Your task to perform on an android device: Do I have any events tomorrow? Image 0: 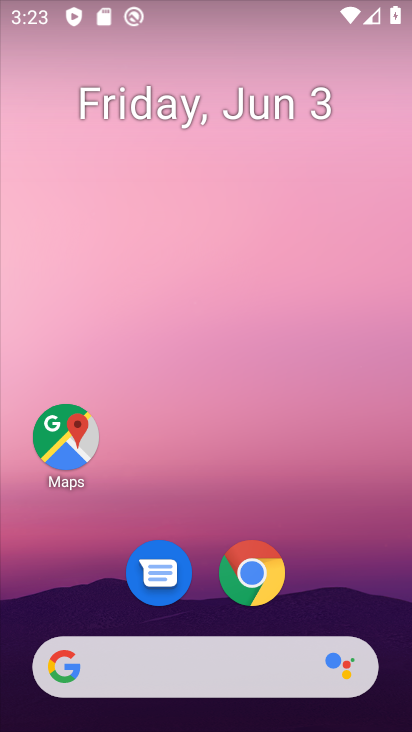
Step 0: drag from (383, 661) to (341, 282)
Your task to perform on an android device: Do I have any events tomorrow? Image 1: 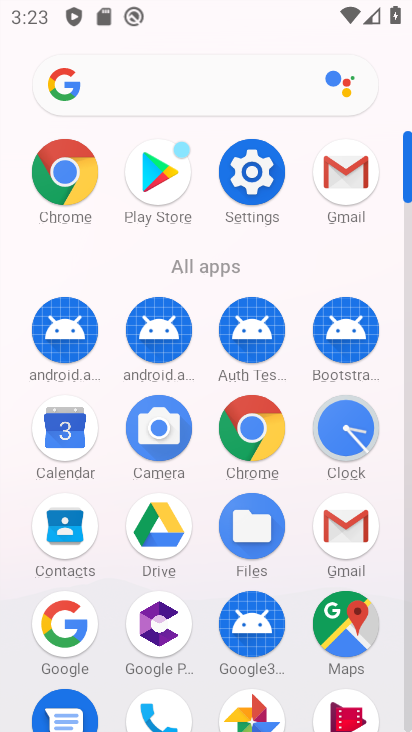
Step 1: click (53, 444)
Your task to perform on an android device: Do I have any events tomorrow? Image 2: 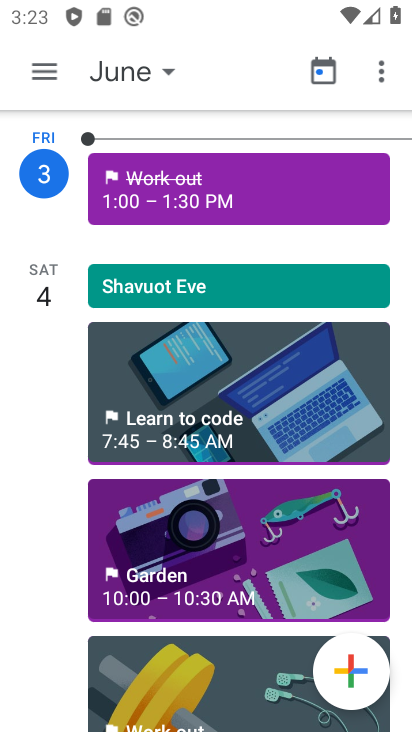
Step 2: click (160, 71)
Your task to perform on an android device: Do I have any events tomorrow? Image 3: 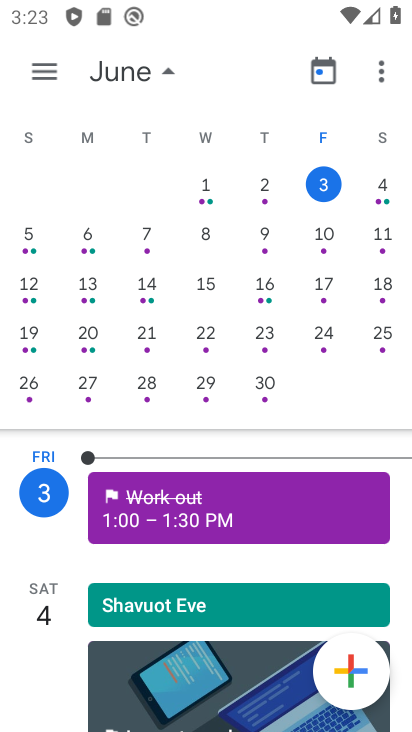
Step 3: click (382, 179)
Your task to perform on an android device: Do I have any events tomorrow? Image 4: 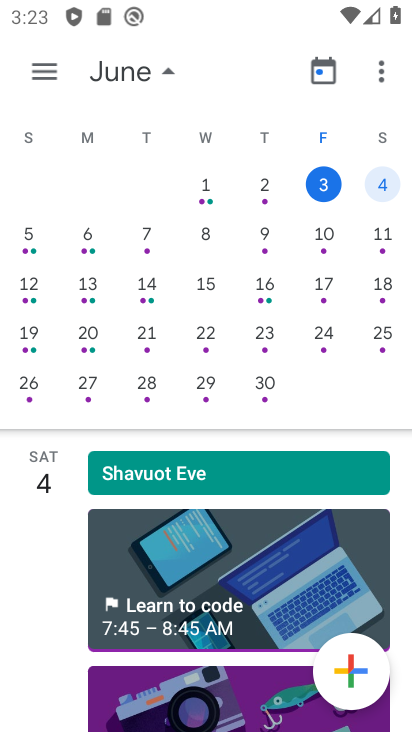
Step 4: click (41, 63)
Your task to perform on an android device: Do I have any events tomorrow? Image 5: 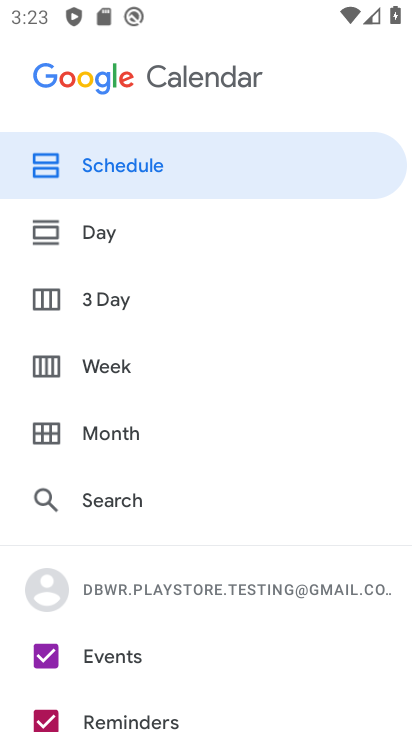
Step 5: click (85, 235)
Your task to perform on an android device: Do I have any events tomorrow? Image 6: 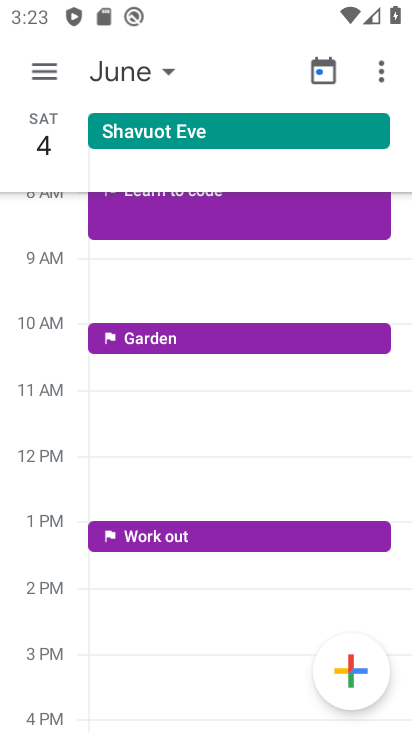
Step 6: click (35, 74)
Your task to perform on an android device: Do I have any events tomorrow? Image 7: 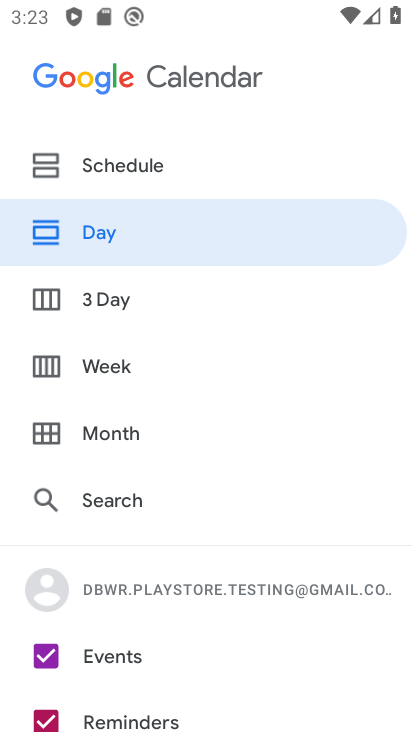
Step 7: click (111, 161)
Your task to perform on an android device: Do I have any events tomorrow? Image 8: 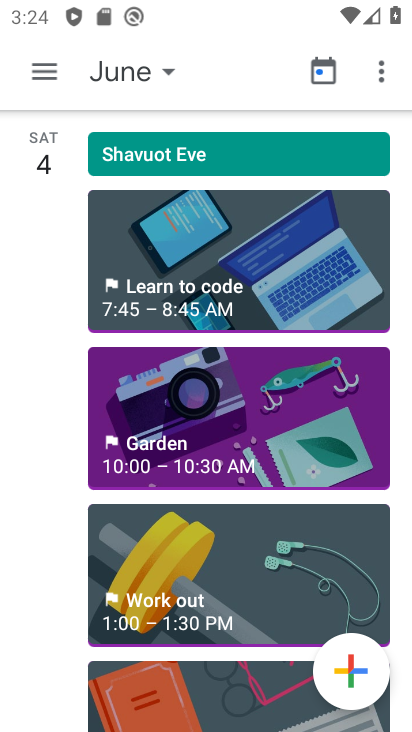
Step 8: task complete